Your task to perform on an android device: Open the calendar and show me this week's events? Image 0: 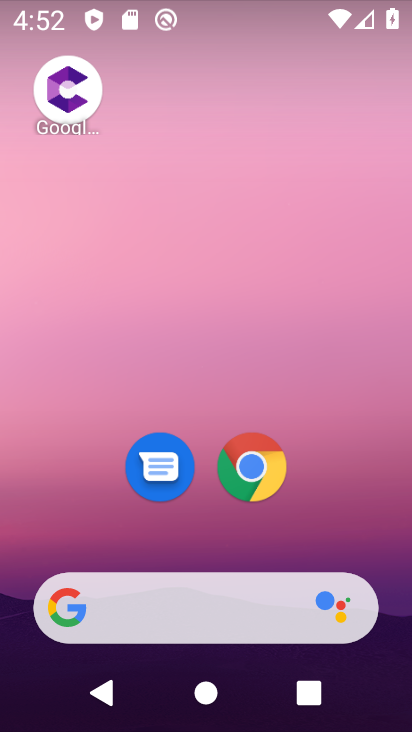
Step 0: drag from (319, 473) to (386, 173)
Your task to perform on an android device: Open the calendar and show me this week's events? Image 1: 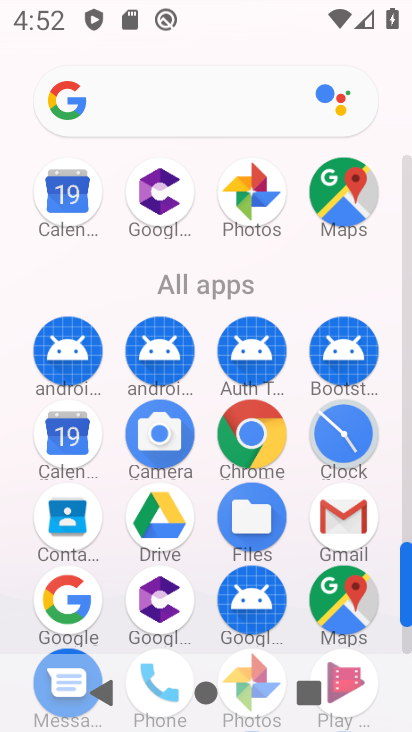
Step 1: click (78, 453)
Your task to perform on an android device: Open the calendar and show me this week's events? Image 2: 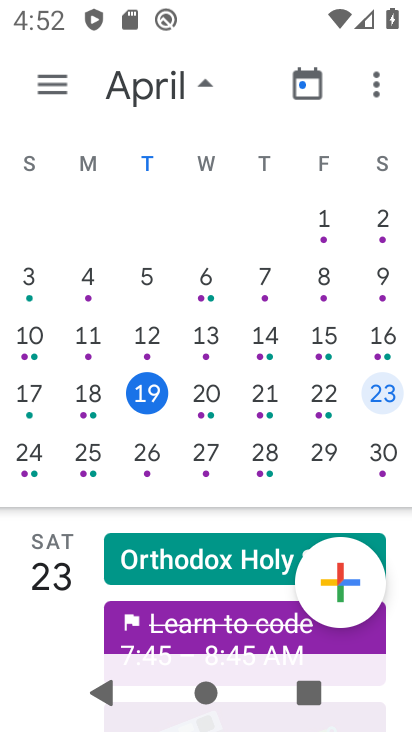
Step 2: click (220, 403)
Your task to perform on an android device: Open the calendar and show me this week's events? Image 3: 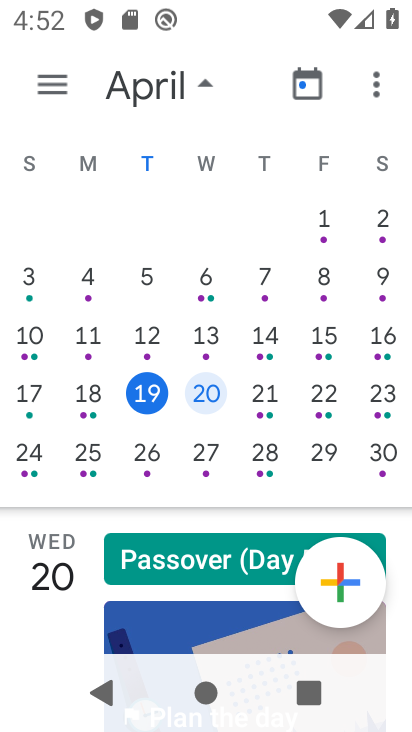
Step 3: click (259, 405)
Your task to perform on an android device: Open the calendar and show me this week's events? Image 4: 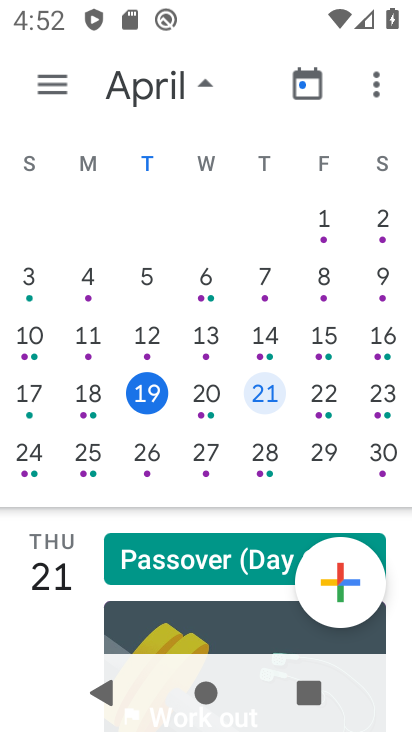
Step 4: click (323, 403)
Your task to perform on an android device: Open the calendar and show me this week's events? Image 5: 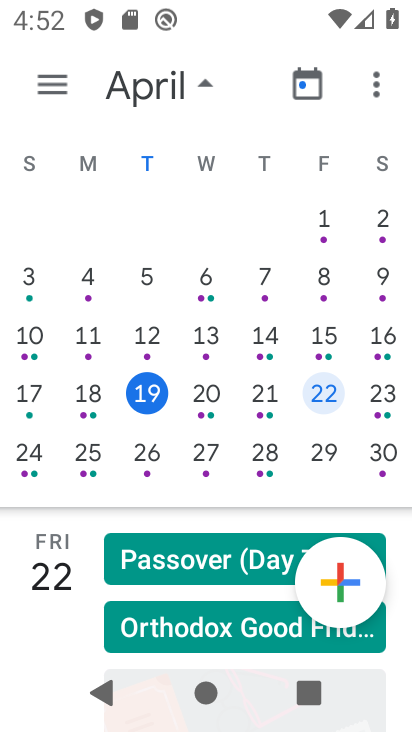
Step 5: click (381, 414)
Your task to perform on an android device: Open the calendar and show me this week's events? Image 6: 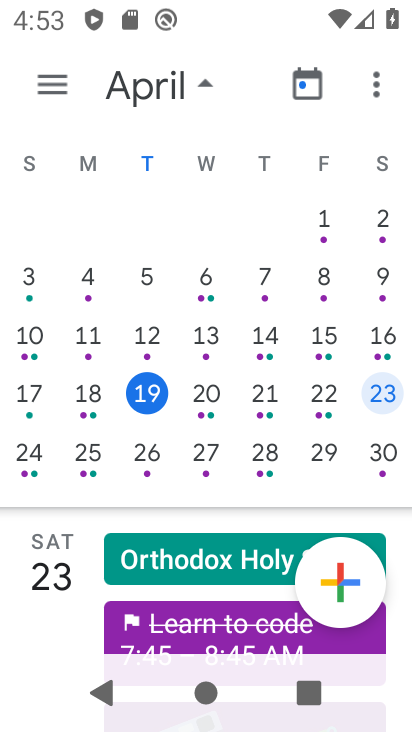
Step 6: task complete